Your task to perform on an android device: Open the calendar app, open the side menu, and click the "Day" option Image 0: 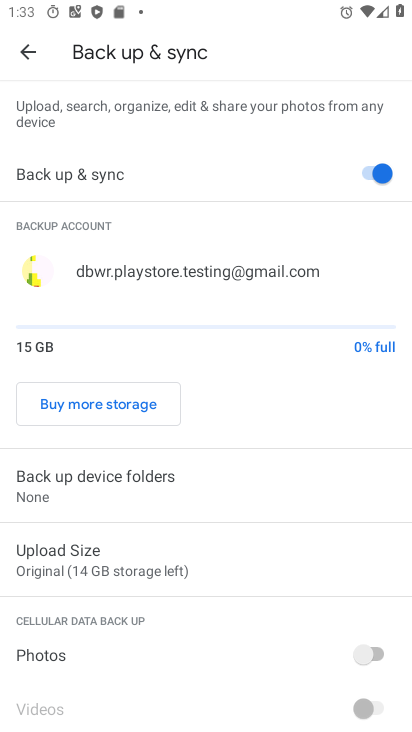
Step 0: press home button
Your task to perform on an android device: Open the calendar app, open the side menu, and click the "Day" option Image 1: 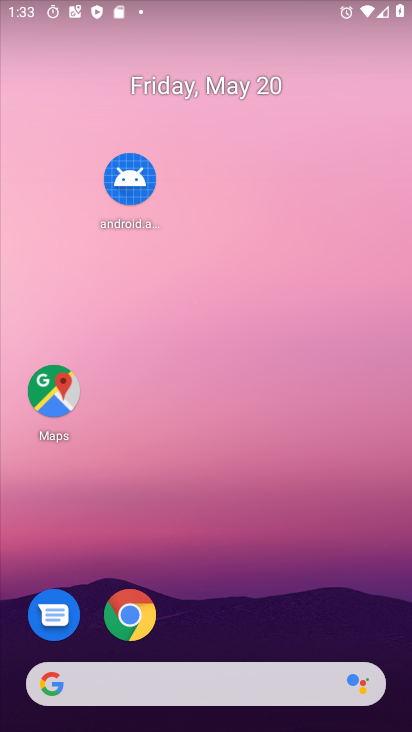
Step 1: drag from (355, 599) to (95, 0)
Your task to perform on an android device: Open the calendar app, open the side menu, and click the "Day" option Image 2: 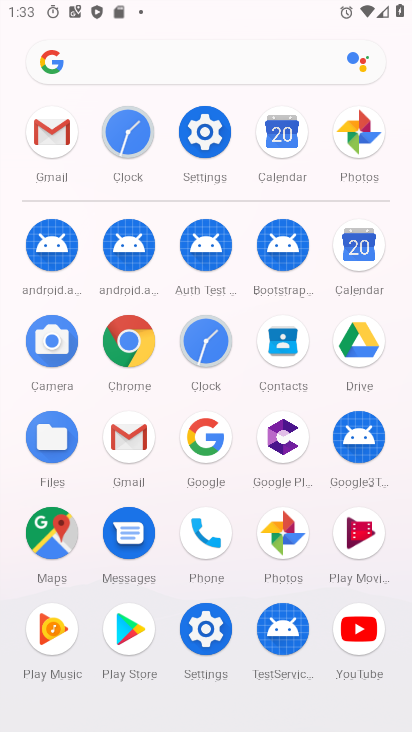
Step 2: click (348, 239)
Your task to perform on an android device: Open the calendar app, open the side menu, and click the "Day" option Image 3: 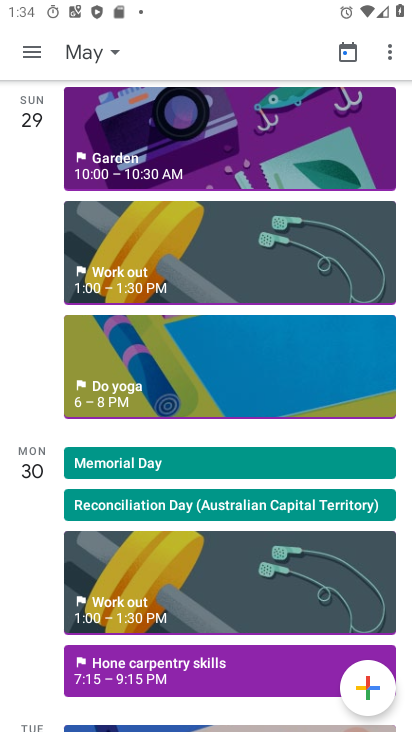
Step 3: click (31, 53)
Your task to perform on an android device: Open the calendar app, open the side menu, and click the "Day" option Image 4: 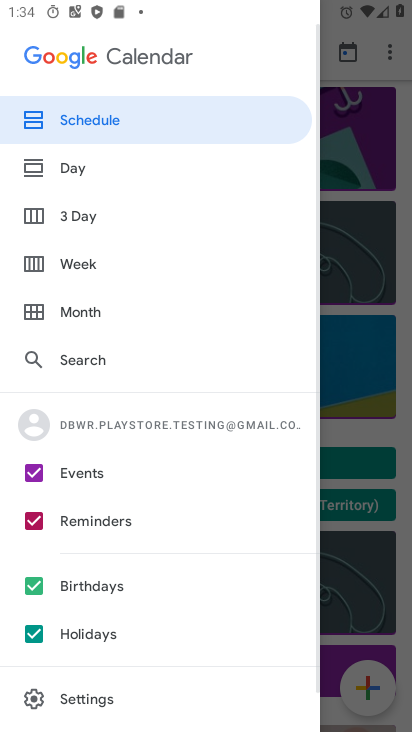
Step 4: click (91, 164)
Your task to perform on an android device: Open the calendar app, open the side menu, and click the "Day" option Image 5: 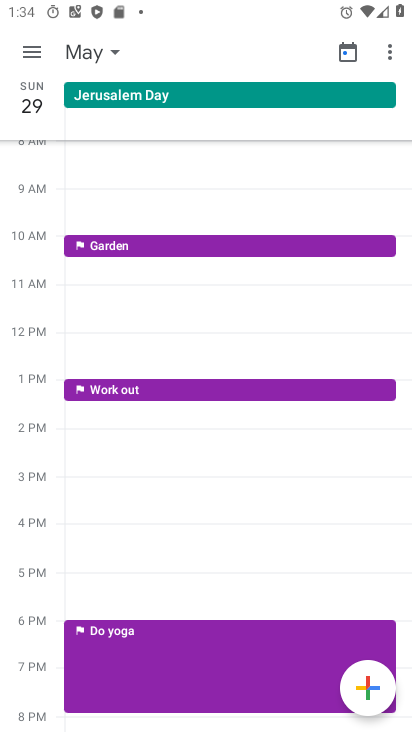
Step 5: task complete